Your task to perform on an android device: Show me popular games on the Play Store Image 0: 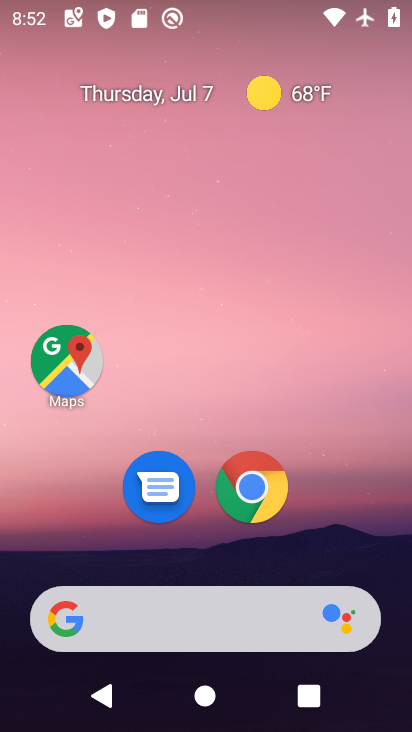
Step 0: drag from (225, 595) to (134, 47)
Your task to perform on an android device: Show me popular games on the Play Store Image 1: 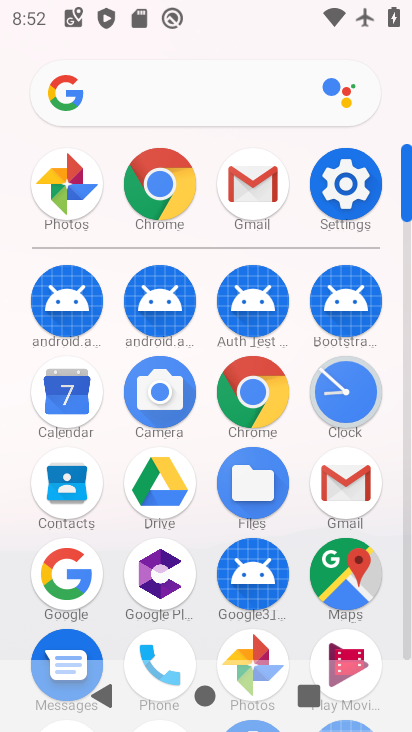
Step 1: drag from (219, 586) to (178, 231)
Your task to perform on an android device: Show me popular games on the Play Store Image 2: 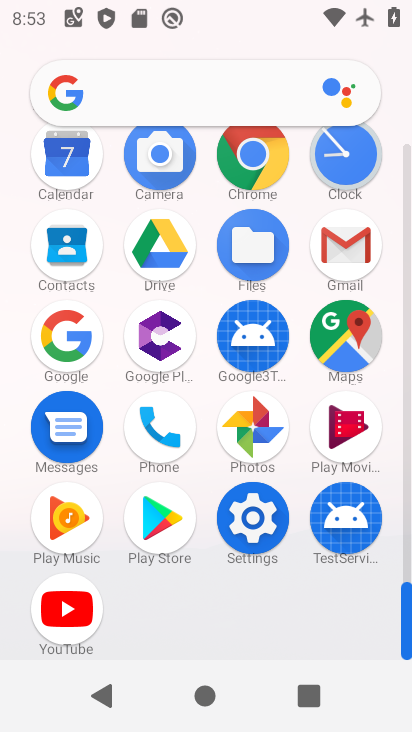
Step 2: click (168, 527)
Your task to perform on an android device: Show me popular games on the Play Store Image 3: 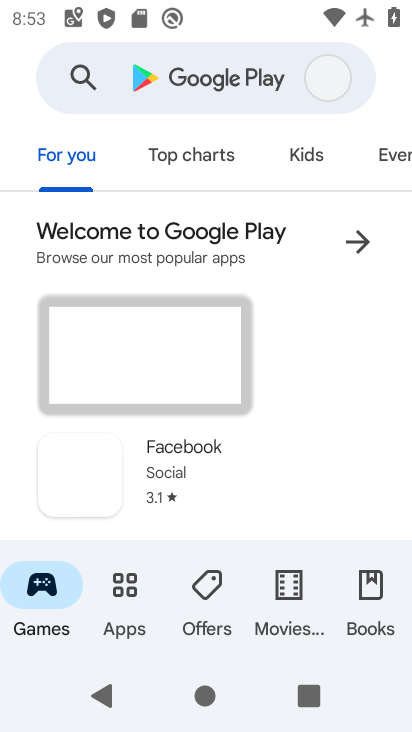
Step 3: drag from (193, 232) to (193, 363)
Your task to perform on an android device: Show me popular games on the Play Store Image 4: 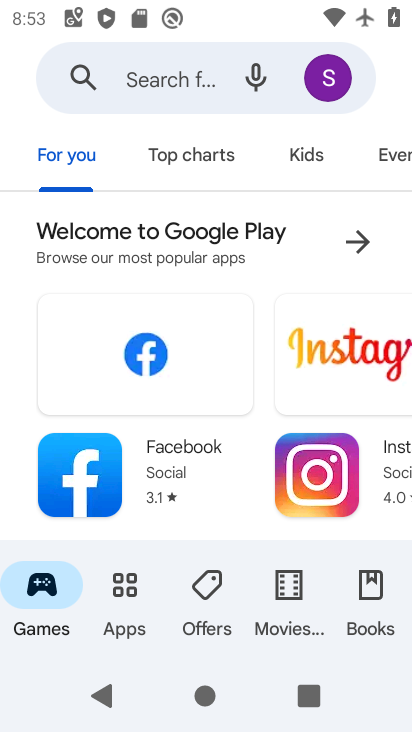
Step 4: drag from (351, 160) to (170, 155)
Your task to perform on an android device: Show me popular games on the Play Store Image 5: 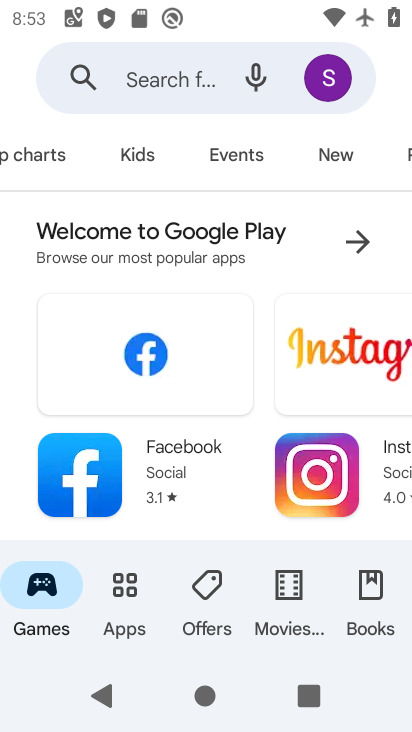
Step 5: drag from (145, 474) to (105, 26)
Your task to perform on an android device: Show me popular games on the Play Store Image 6: 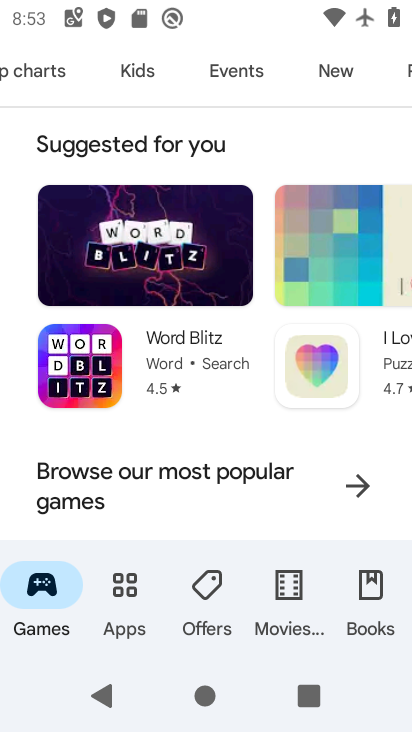
Step 6: drag from (221, 427) to (181, 184)
Your task to perform on an android device: Show me popular games on the Play Store Image 7: 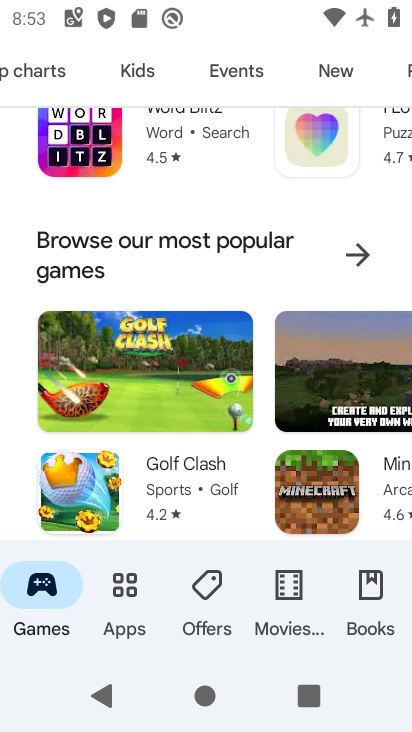
Step 7: click (272, 256)
Your task to perform on an android device: Show me popular games on the Play Store Image 8: 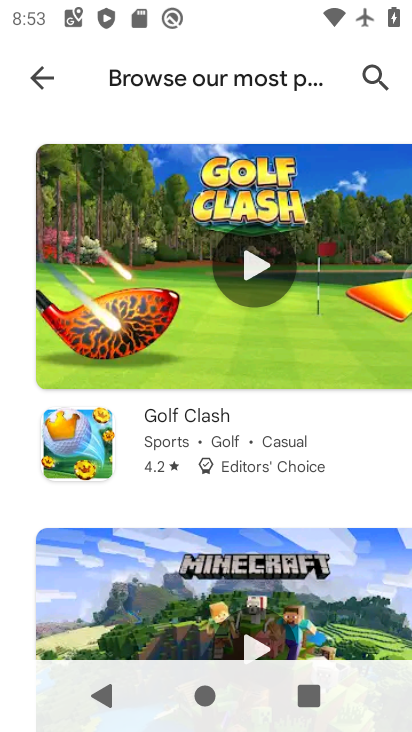
Step 8: task complete